Your task to perform on an android device: turn off translation in the chrome app Image 0: 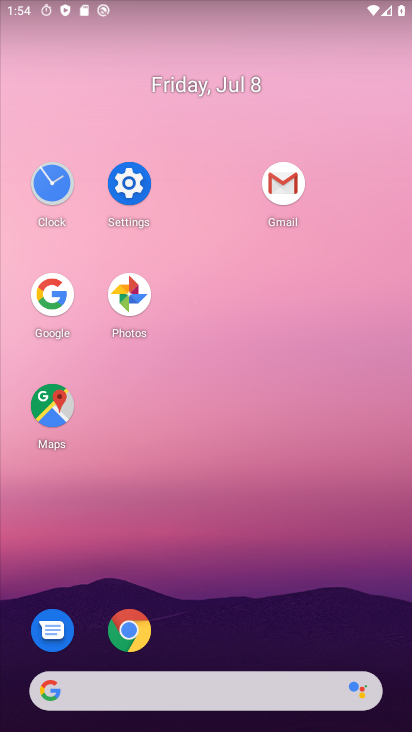
Step 0: click (128, 620)
Your task to perform on an android device: turn off translation in the chrome app Image 1: 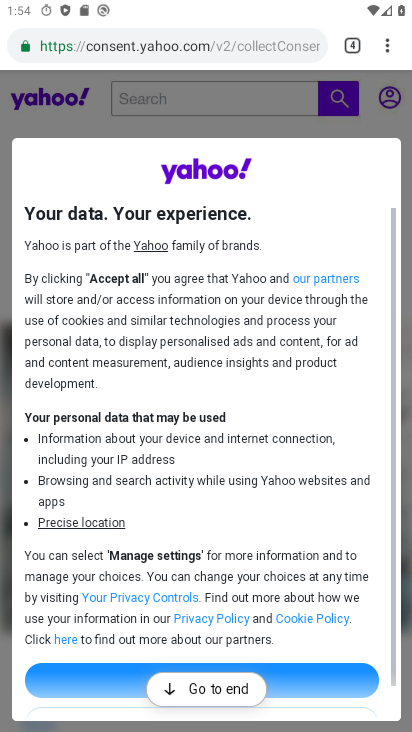
Step 1: click (395, 56)
Your task to perform on an android device: turn off translation in the chrome app Image 2: 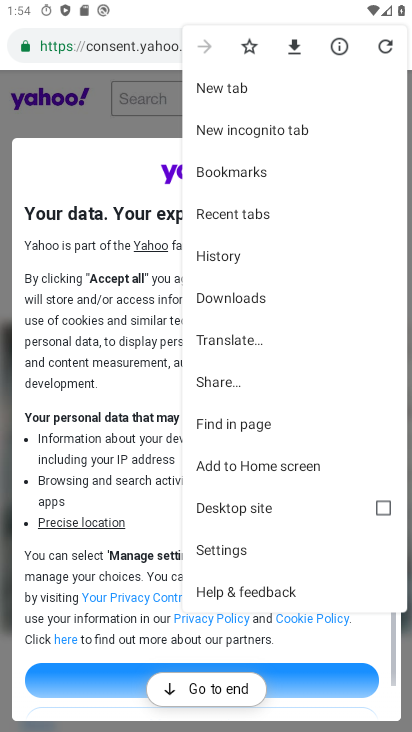
Step 2: click (228, 542)
Your task to perform on an android device: turn off translation in the chrome app Image 3: 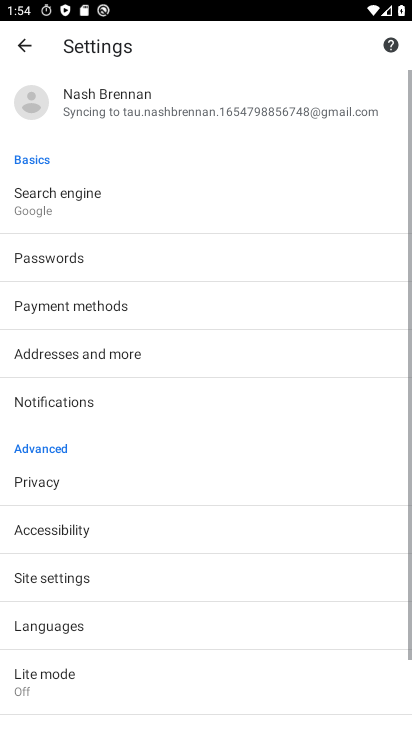
Step 3: drag from (228, 542) to (296, 281)
Your task to perform on an android device: turn off translation in the chrome app Image 4: 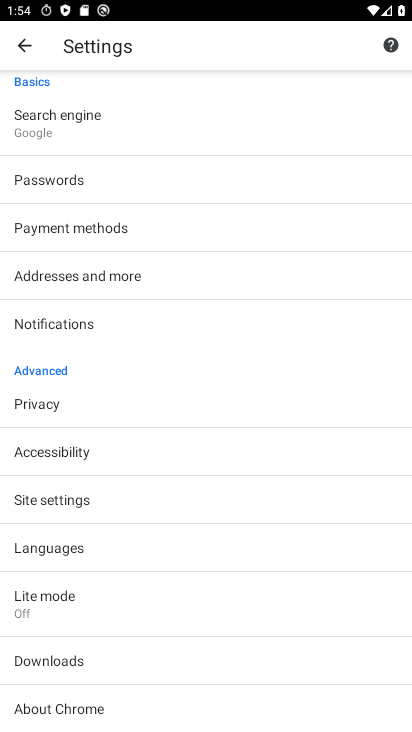
Step 4: click (158, 554)
Your task to perform on an android device: turn off translation in the chrome app Image 5: 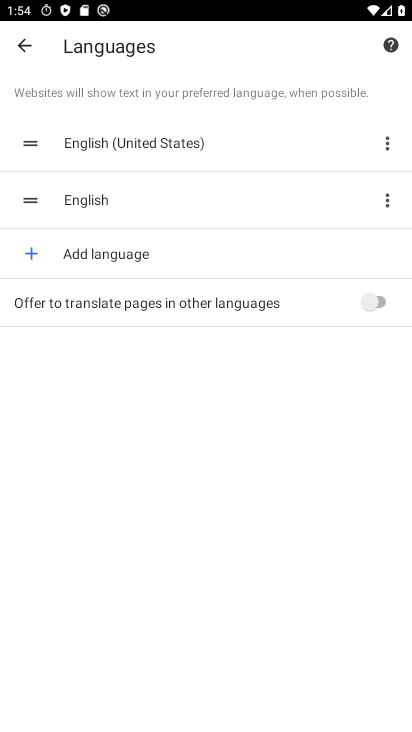
Step 5: task complete